Your task to perform on an android device: read, delete, or share a saved page in the chrome app Image 0: 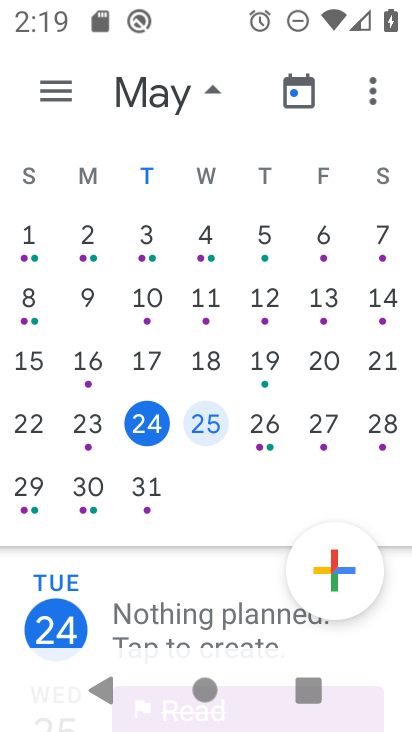
Step 0: press home button
Your task to perform on an android device: read, delete, or share a saved page in the chrome app Image 1: 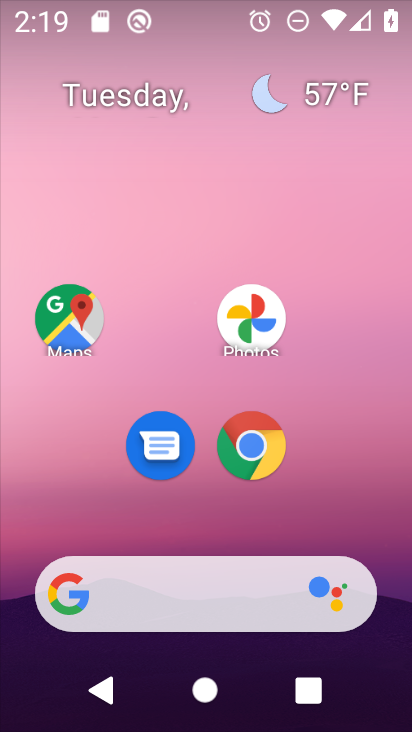
Step 1: drag from (398, 534) to (408, 186)
Your task to perform on an android device: read, delete, or share a saved page in the chrome app Image 2: 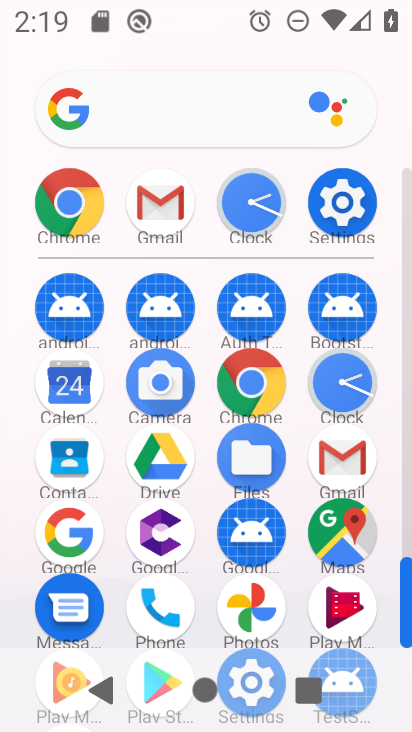
Step 2: click (278, 392)
Your task to perform on an android device: read, delete, or share a saved page in the chrome app Image 3: 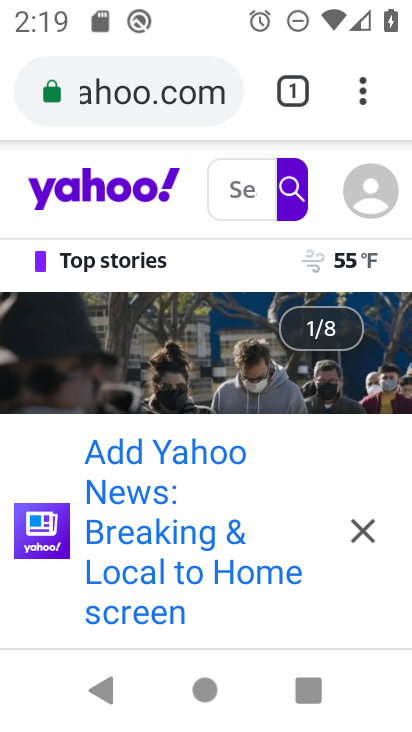
Step 3: click (366, 104)
Your task to perform on an android device: read, delete, or share a saved page in the chrome app Image 4: 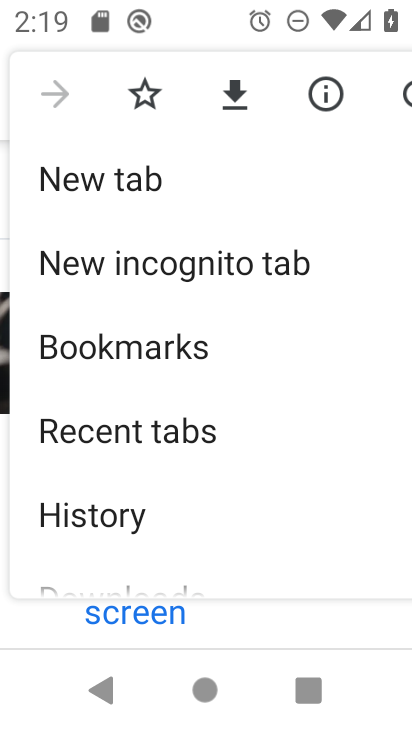
Step 4: drag from (324, 479) to (356, 329)
Your task to perform on an android device: read, delete, or share a saved page in the chrome app Image 5: 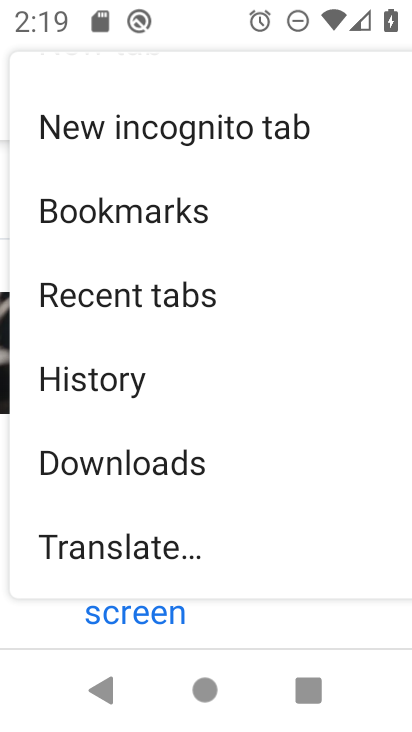
Step 5: click (208, 458)
Your task to perform on an android device: read, delete, or share a saved page in the chrome app Image 6: 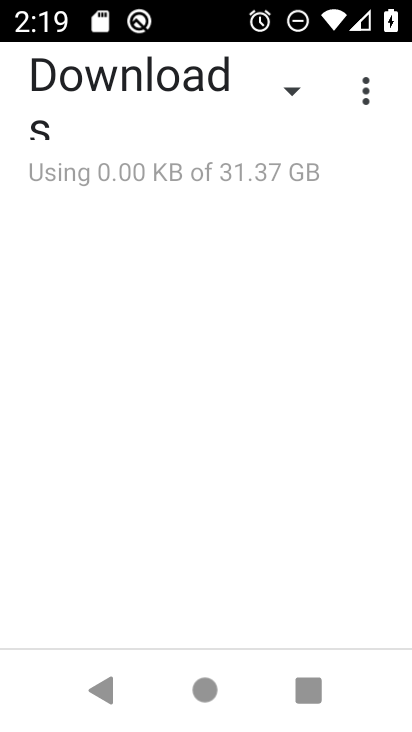
Step 6: click (297, 89)
Your task to perform on an android device: read, delete, or share a saved page in the chrome app Image 7: 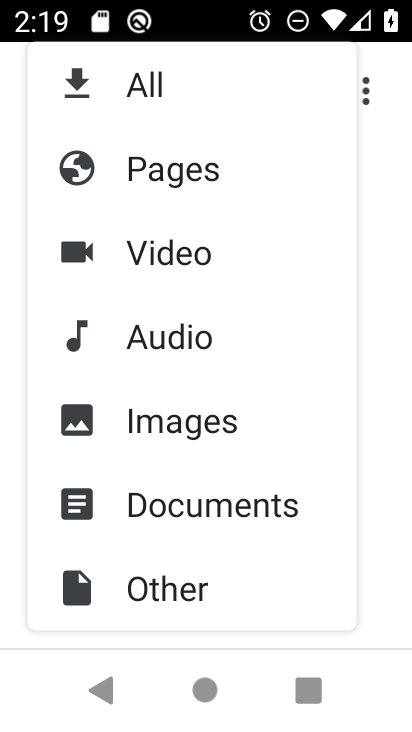
Step 7: click (190, 173)
Your task to perform on an android device: read, delete, or share a saved page in the chrome app Image 8: 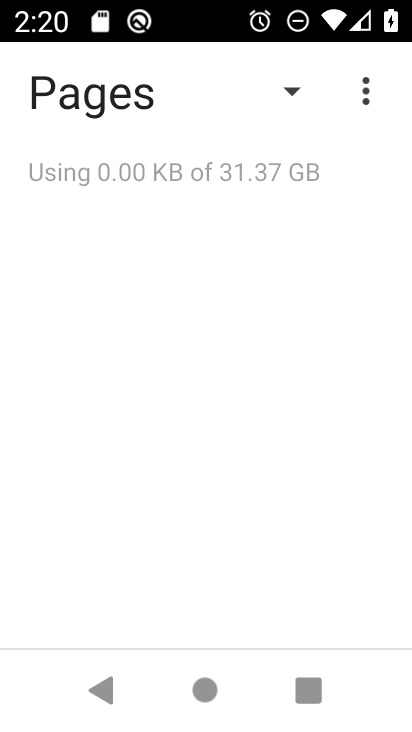
Step 8: task complete